Your task to perform on an android device: Go to eBay Image 0: 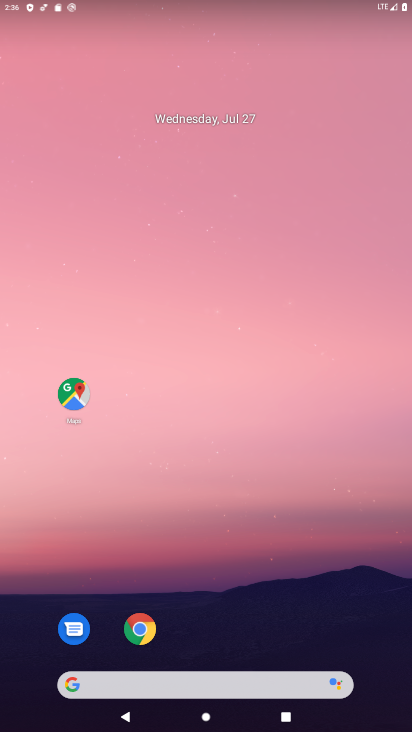
Step 0: click (146, 631)
Your task to perform on an android device: Go to eBay Image 1: 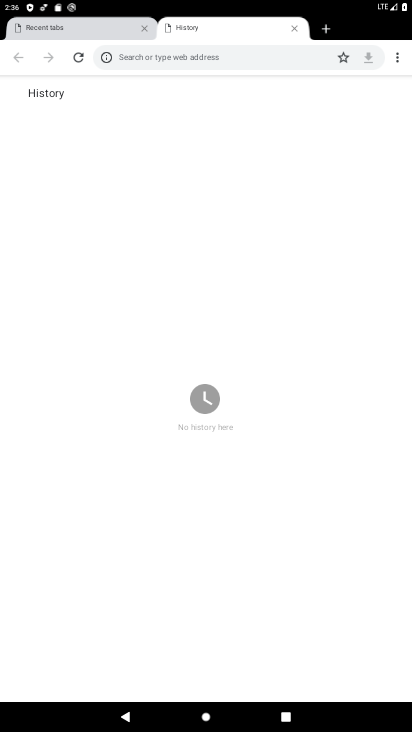
Step 1: click (332, 32)
Your task to perform on an android device: Go to eBay Image 2: 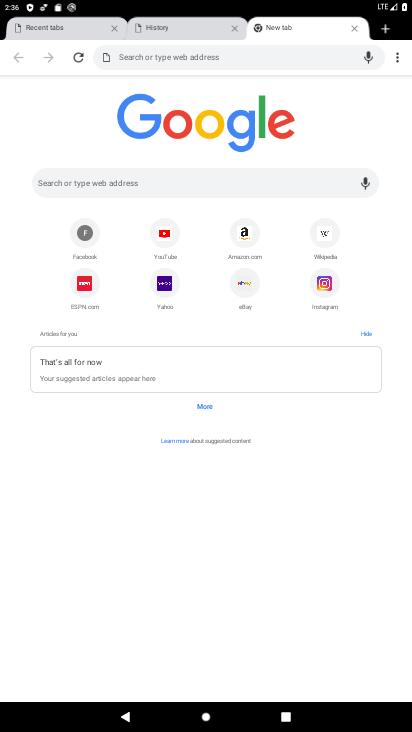
Step 2: click (241, 279)
Your task to perform on an android device: Go to eBay Image 3: 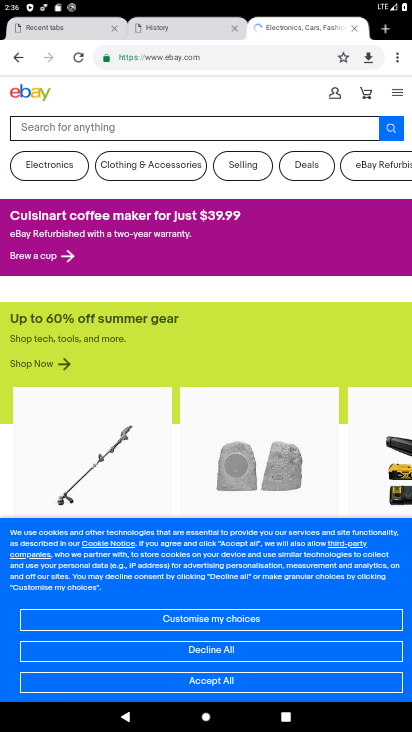
Step 3: task complete